Your task to perform on an android device: turn off smart reply in the gmail app Image 0: 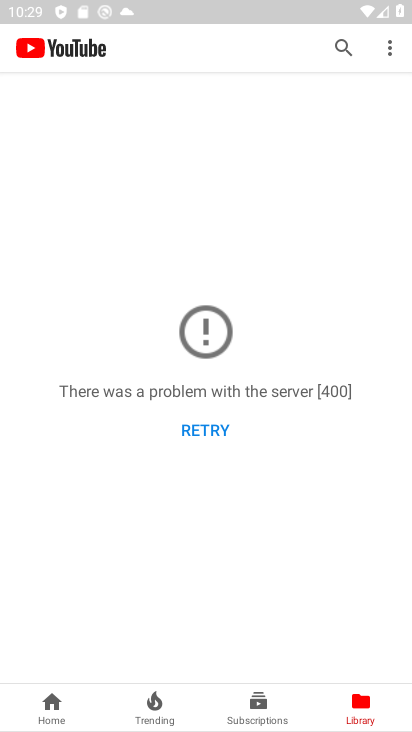
Step 0: press back button
Your task to perform on an android device: turn off smart reply in the gmail app Image 1: 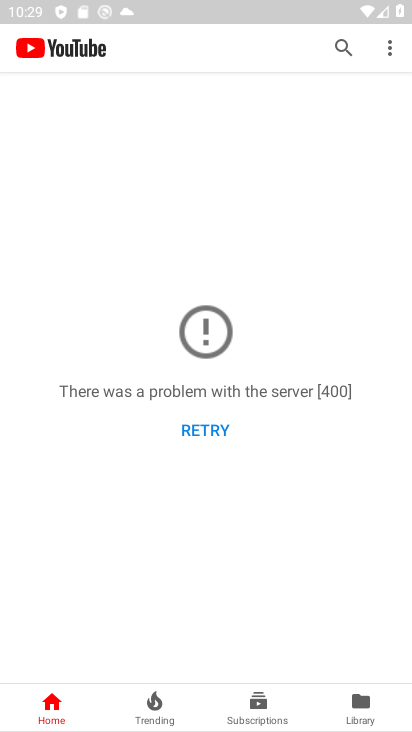
Step 1: press home button
Your task to perform on an android device: turn off smart reply in the gmail app Image 2: 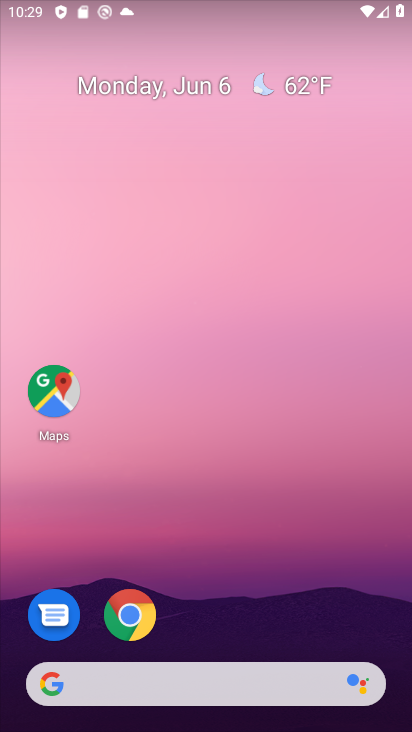
Step 2: drag from (203, 670) to (308, 160)
Your task to perform on an android device: turn off smart reply in the gmail app Image 3: 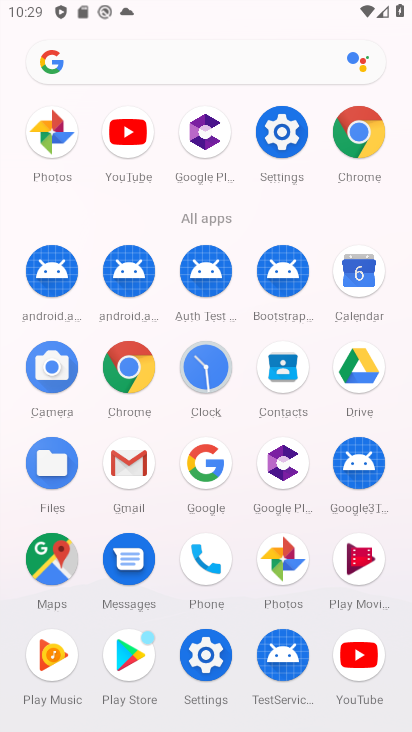
Step 3: click (145, 459)
Your task to perform on an android device: turn off smart reply in the gmail app Image 4: 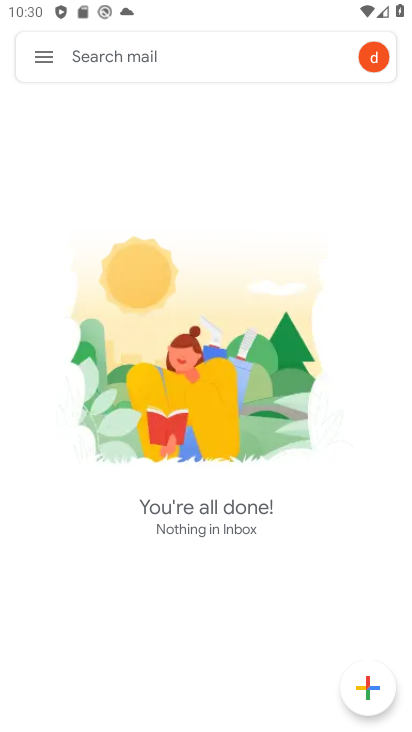
Step 4: press home button
Your task to perform on an android device: turn off smart reply in the gmail app Image 5: 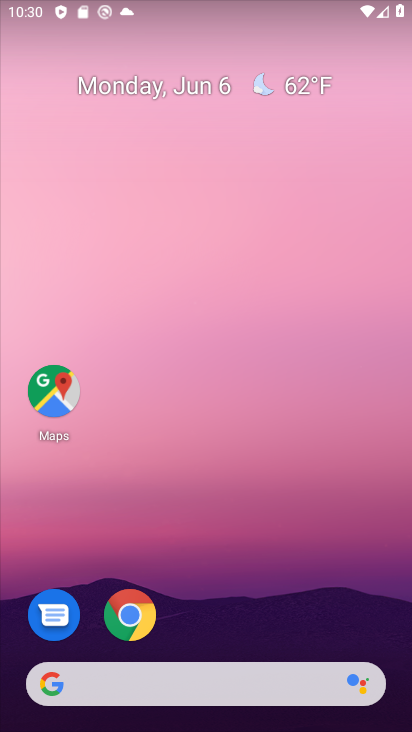
Step 5: drag from (182, 698) to (212, 242)
Your task to perform on an android device: turn off smart reply in the gmail app Image 6: 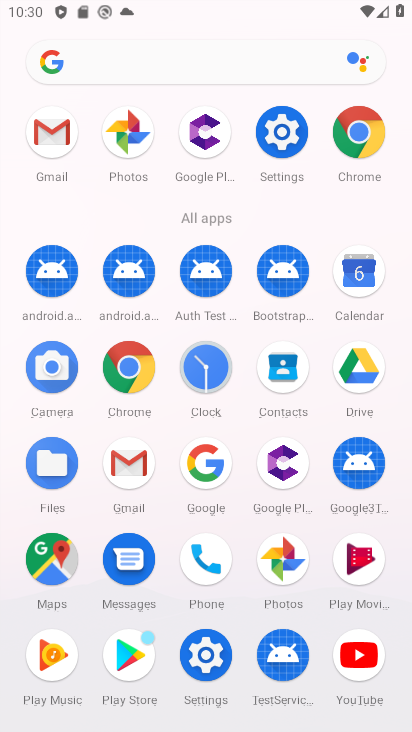
Step 6: click (124, 458)
Your task to perform on an android device: turn off smart reply in the gmail app Image 7: 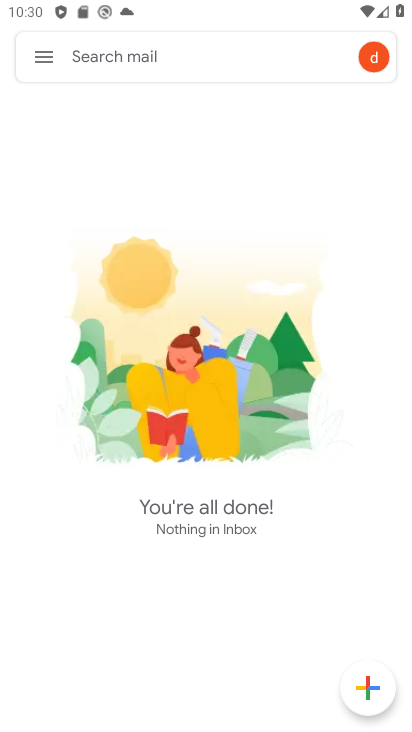
Step 7: click (49, 63)
Your task to perform on an android device: turn off smart reply in the gmail app Image 8: 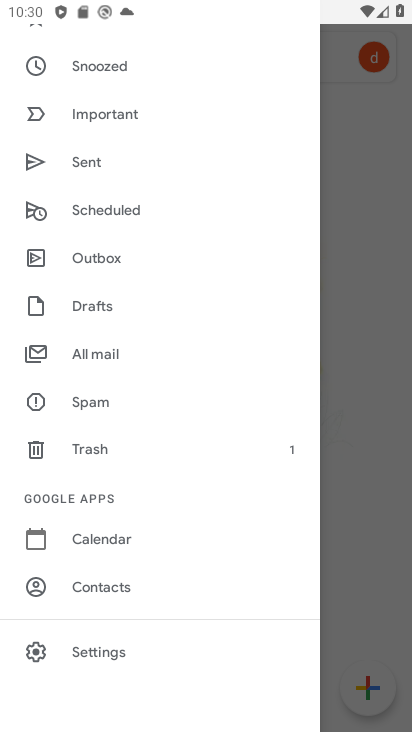
Step 8: click (100, 648)
Your task to perform on an android device: turn off smart reply in the gmail app Image 9: 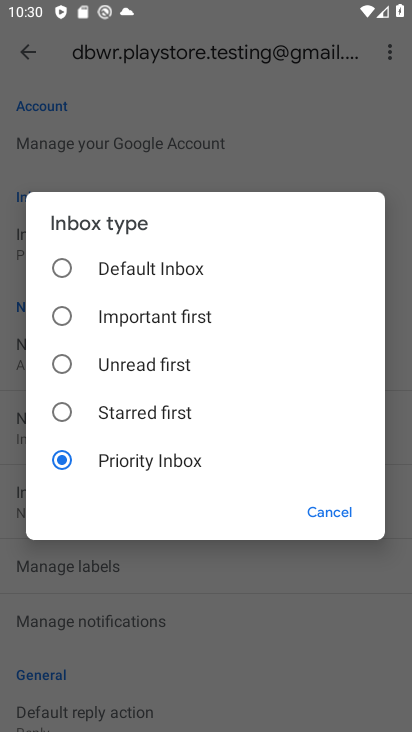
Step 9: click (320, 512)
Your task to perform on an android device: turn off smart reply in the gmail app Image 10: 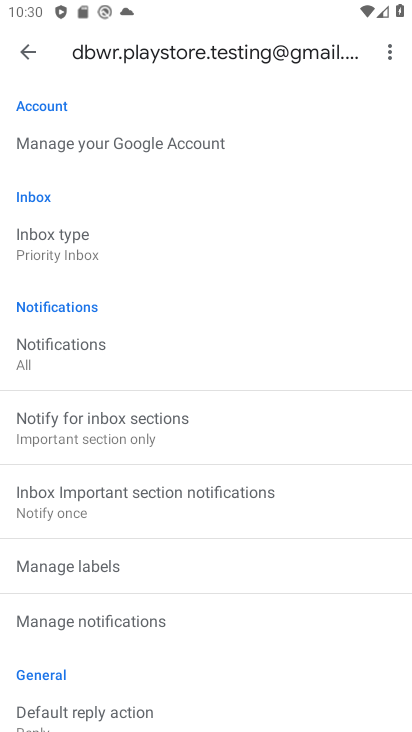
Step 10: drag from (196, 558) to (106, 41)
Your task to perform on an android device: turn off smart reply in the gmail app Image 11: 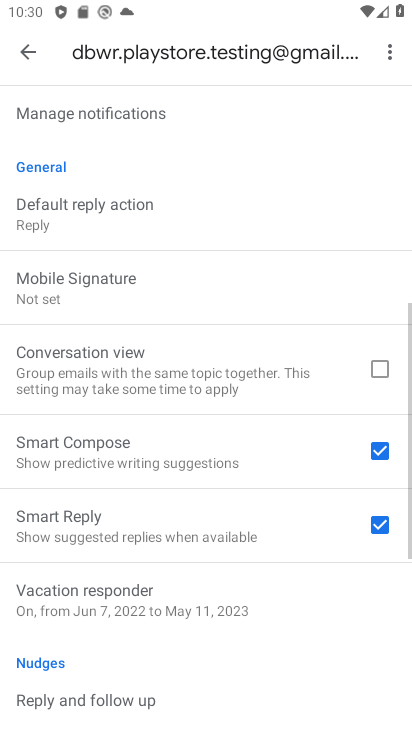
Step 11: click (377, 531)
Your task to perform on an android device: turn off smart reply in the gmail app Image 12: 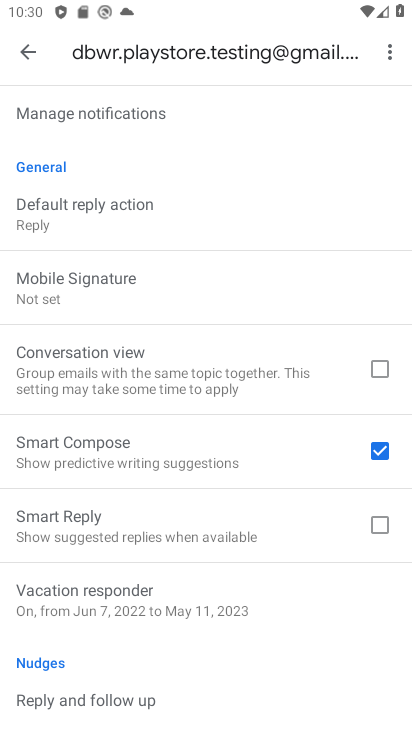
Step 12: task complete